Your task to perform on an android device: toggle improve location accuracy Image 0: 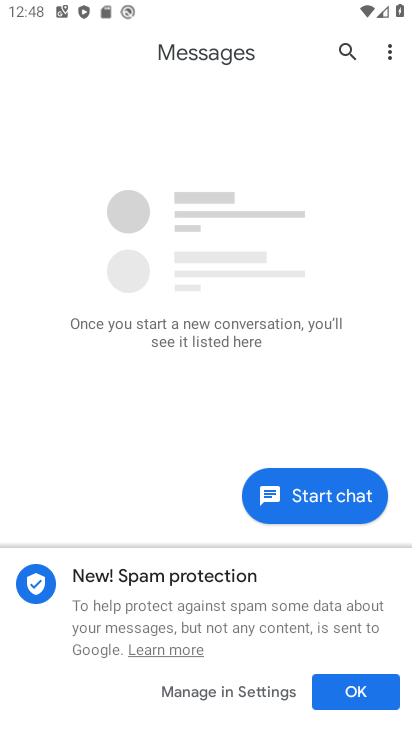
Step 0: task complete